Your task to perform on an android device: Is it going to rain tomorrow? Image 0: 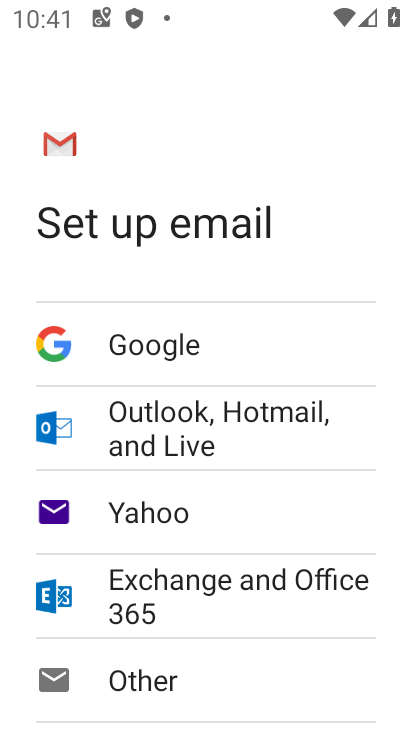
Step 0: press home button
Your task to perform on an android device: Is it going to rain tomorrow? Image 1: 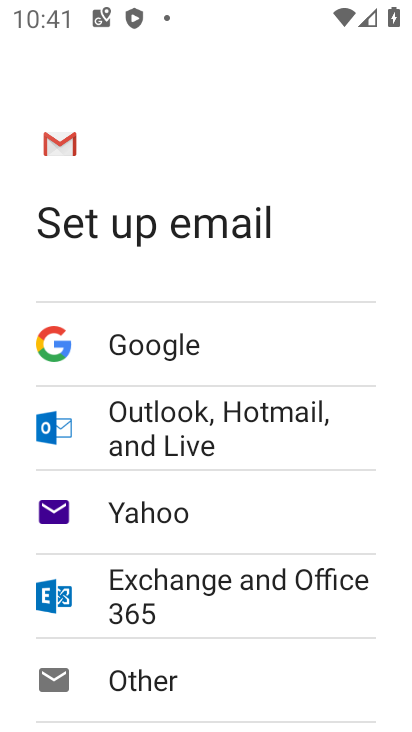
Step 1: press home button
Your task to perform on an android device: Is it going to rain tomorrow? Image 2: 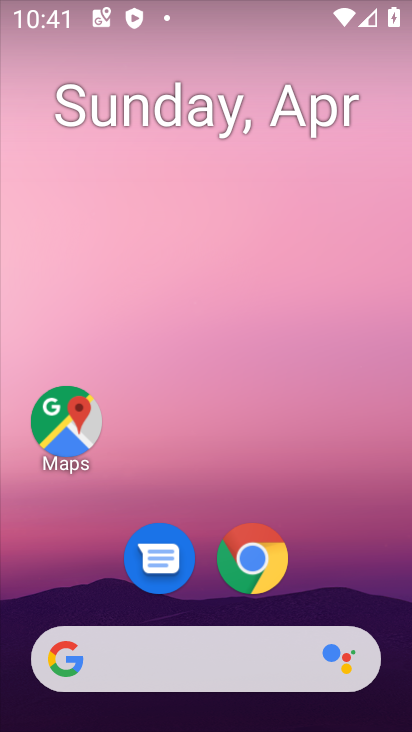
Step 2: drag from (4, 181) to (361, 329)
Your task to perform on an android device: Is it going to rain tomorrow? Image 3: 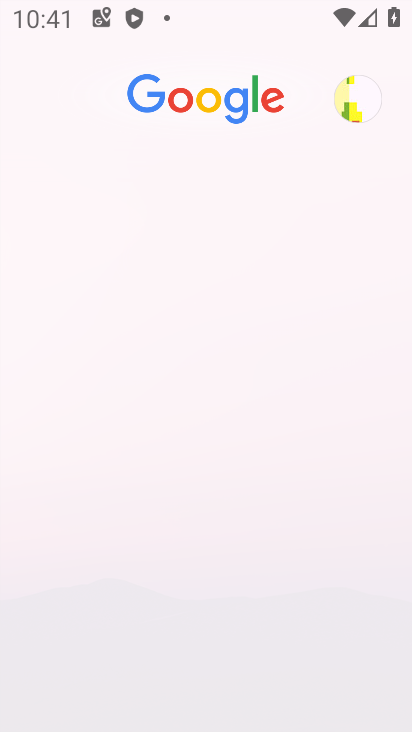
Step 3: click (399, 405)
Your task to perform on an android device: Is it going to rain tomorrow? Image 4: 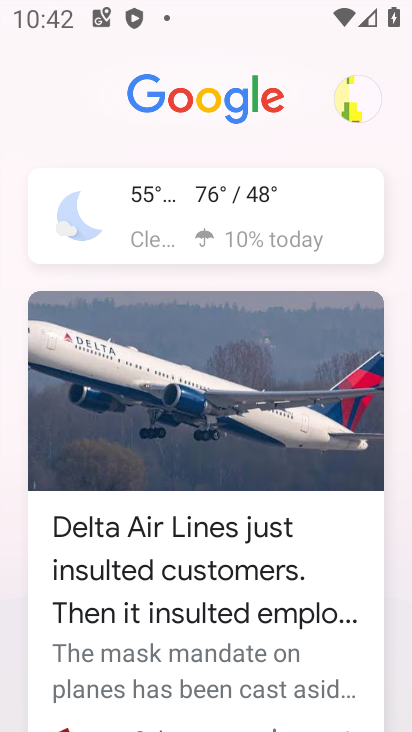
Step 4: click (214, 197)
Your task to perform on an android device: Is it going to rain tomorrow? Image 5: 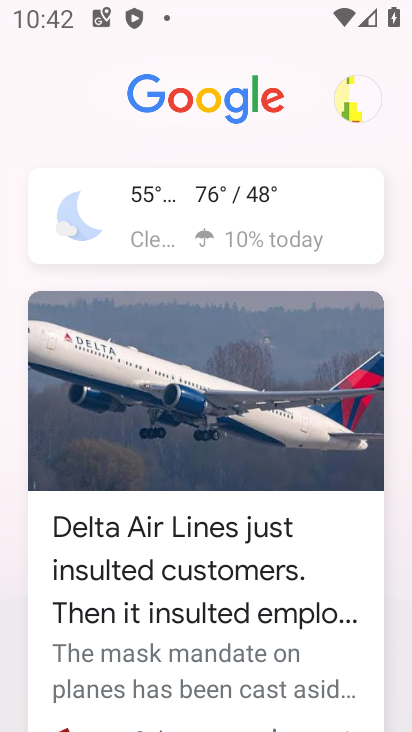
Step 5: click (216, 197)
Your task to perform on an android device: Is it going to rain tomorrow? Image 6: 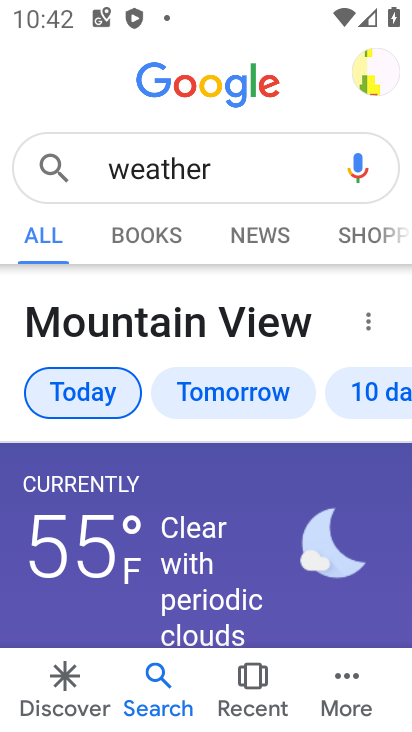
Step 6: click (227, 199)
Your task to perform on an android device: Is it going to rain tomorrow? Image 7: 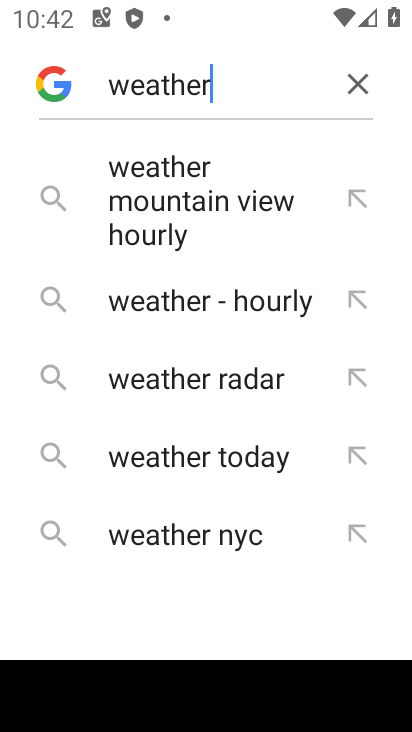
Step 7: task complete